Your task to perform on an android device: Open Android settings Image 0: 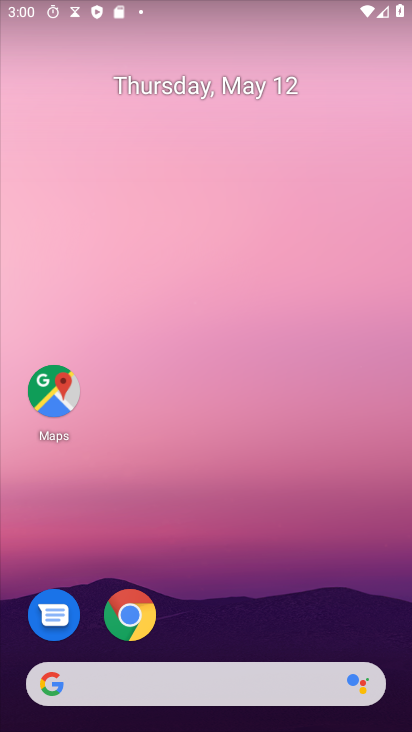
Step 0: press home button
Your task to perform on an android device: Open Android settings Image 1: 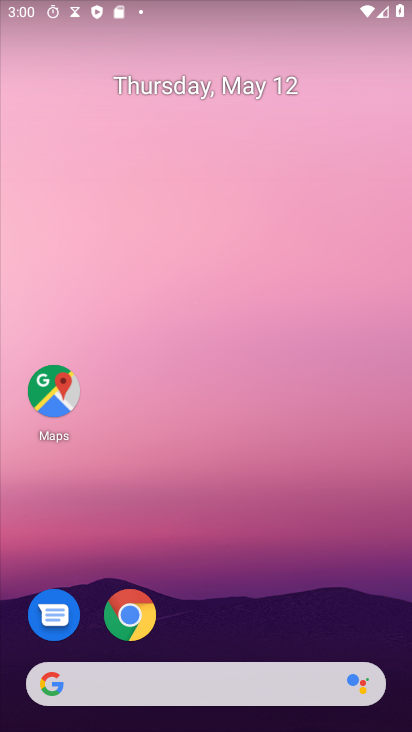
Step 1: drag from (26, 617) to (205, 118)
Your task to perform on an android device: Open Android settings Image 2: 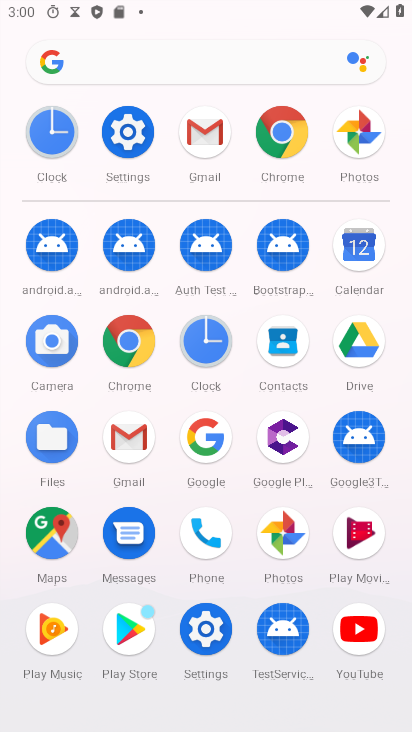
Step 2: click (138, 129)
Your task to perform on an android device: Open Android settings Image 3: 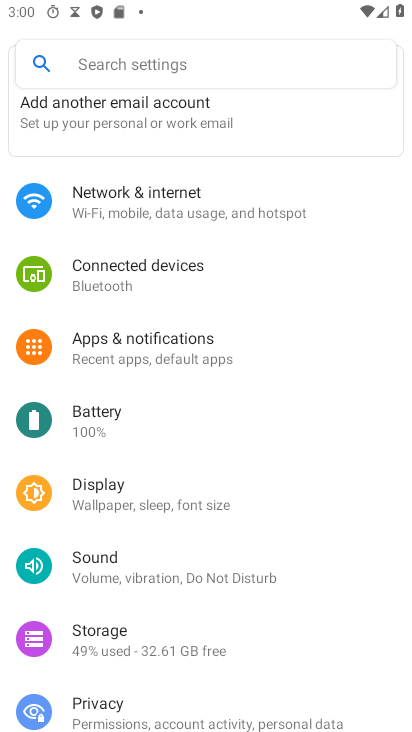
Step 3: drag from (131, 708) to (334, 113)
Your task to perform on an android device: Open Android settings Image 4: 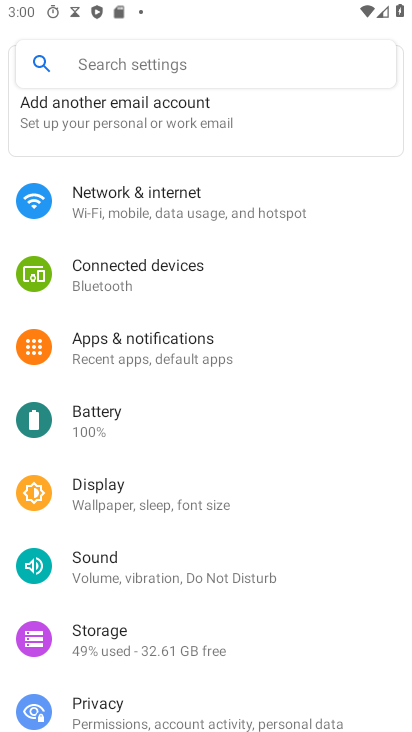
Step 4: drag from (6, 506) to (223, 153)
Your task to perform on an android device: Open Android settings Image 5: 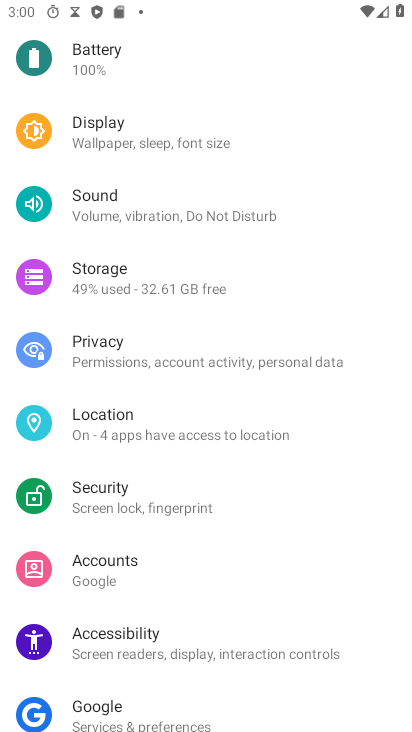
Step 5: drag from (7, 663) to (263, 253)
Your task to perform on an android device: Open Android settings Image 6: 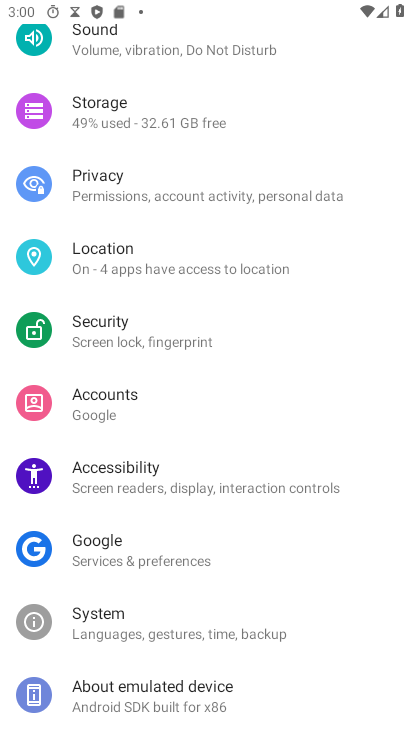
Step 6: drag from (107, 730) to (333, 323)
Your task to perform on an android device: Open Android settings Image 7: 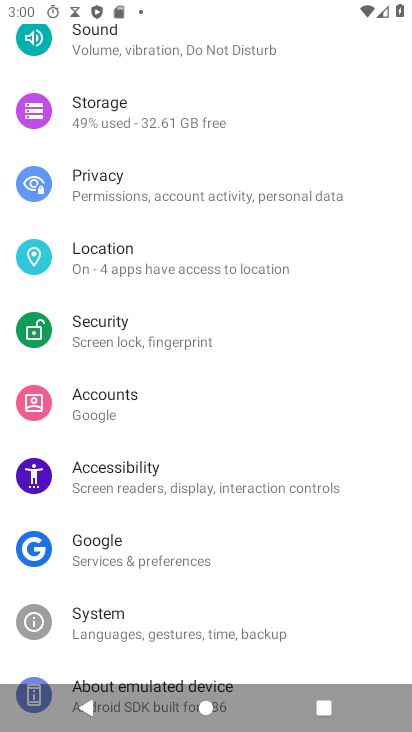
Step 7: click (138, 660)
Your task to perform on an android device: Open Android settings Image 8: 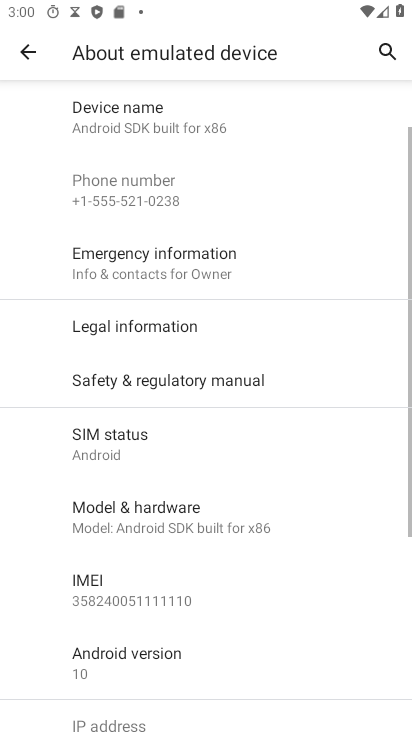
Step 8: click (127, 427)
Your task to perform on an android device: Open Android settings Image 9: 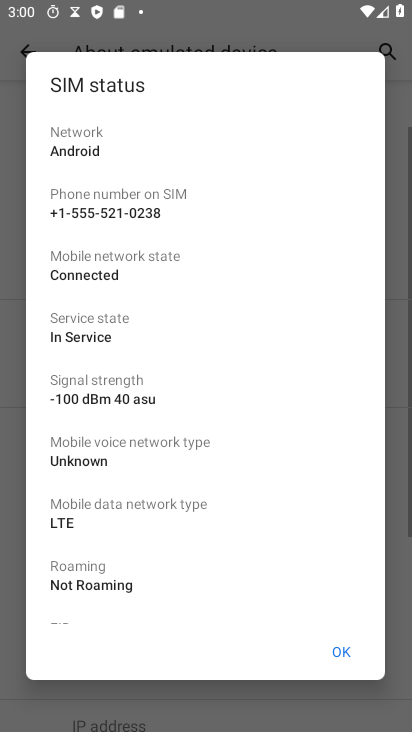
Step 9: task complete